Your task to perform on an android device: remove spam from my inbox in the gmail app Image 0: 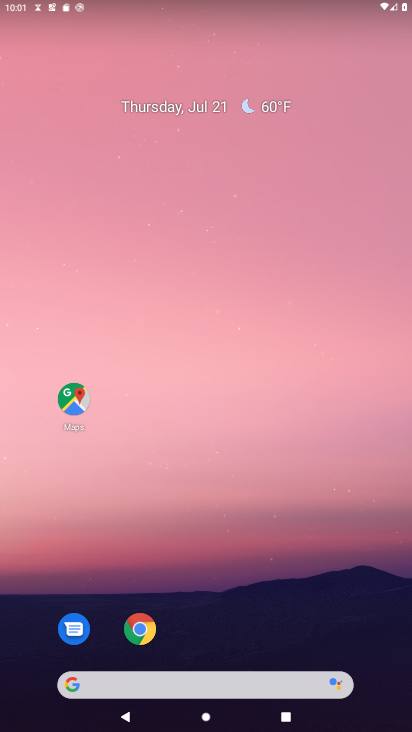
Step 0: drag from (176, 604) to (176, 85)
Your task to perform on an android device: remove spam from my inbox in the gmail app Image 1: 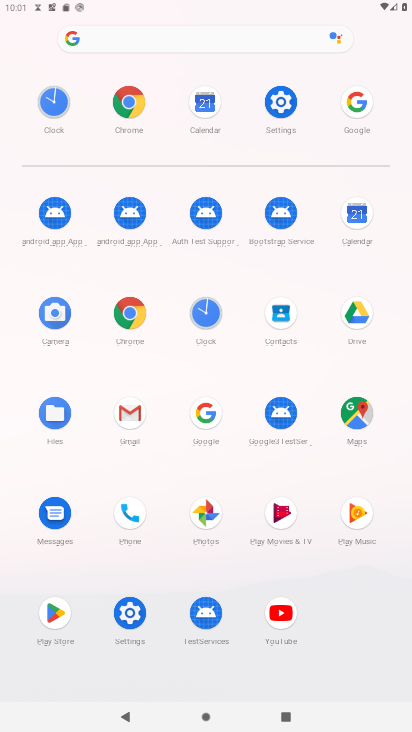
Step 1: click (133, 421)
Your task to perform on an android device: remove spam from my inbox in the gmail app Image 2: 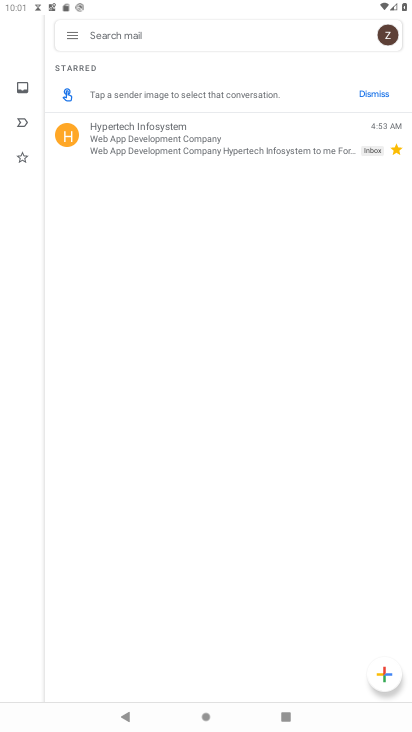
Step 2: click (76, 30)
Your task to perform on an android device: remove spam from my inbox in the gmail app Image 3: 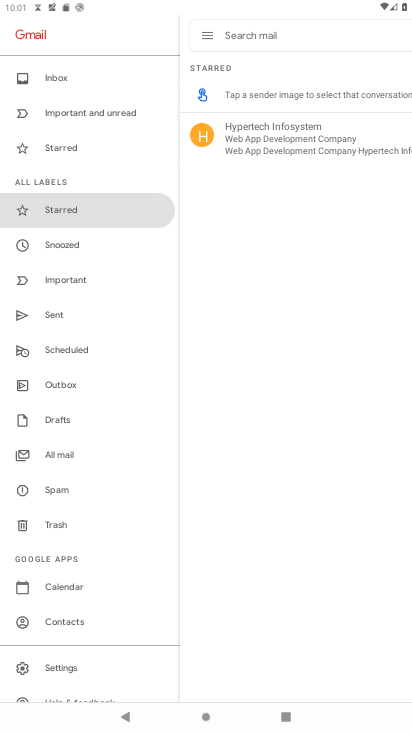
Step 3: click (64, 486)
Your task to perform on an android device: remove spam from my inbox in the gmail app Image 4: 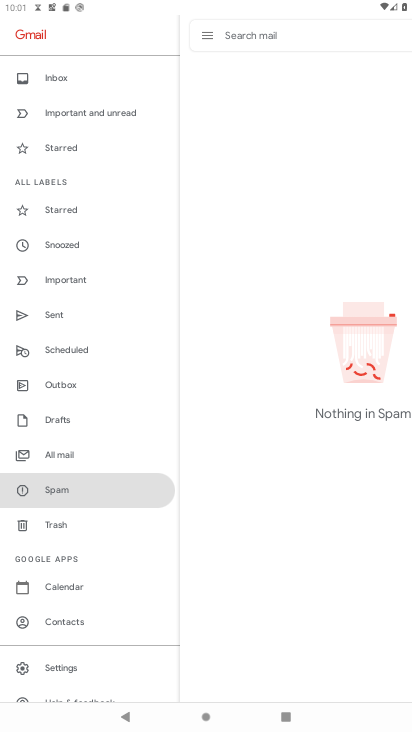
Step 4: task complete